Your task to perform on an android device: Check the news Image 0: 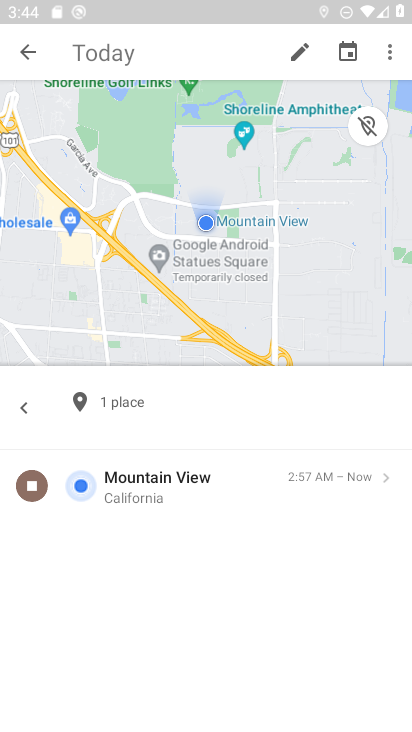
Step 0: press home button
Your task to perform on an android device: Check the news Image 1: 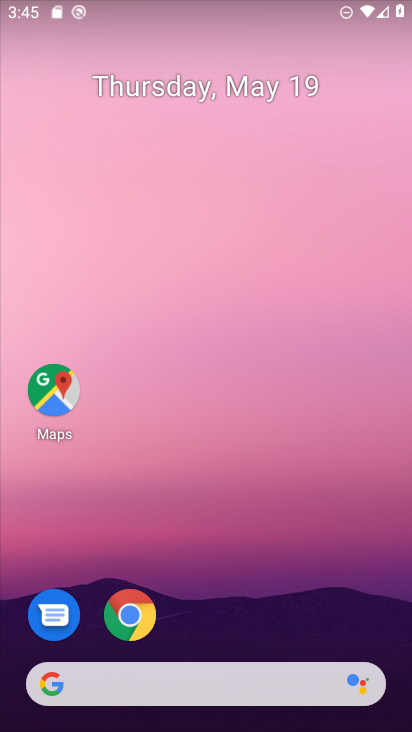
Step 1: drag from (264, 605) to (252, 150)
Your task to perform on an android device: Check the news Image 2: 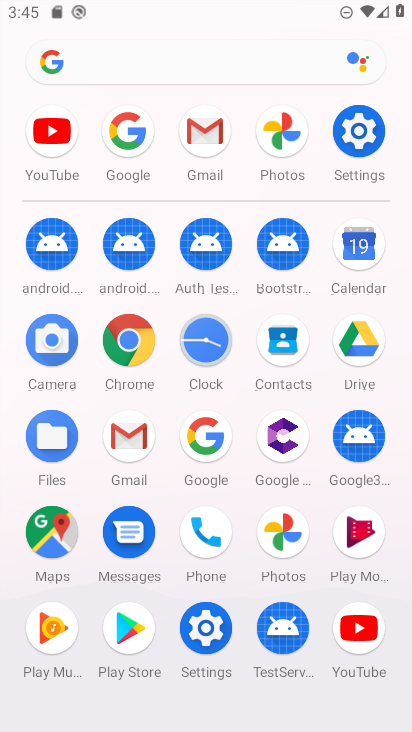
Step 2: click (145, 321)
Your task to perform on an android device: Check the news Image 3: 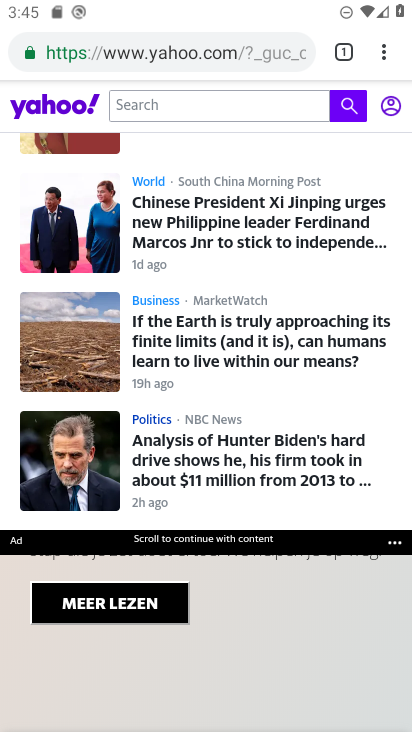
Step 3: click (199, 51)
Your task to perform on an android device: Check the news Image 4: 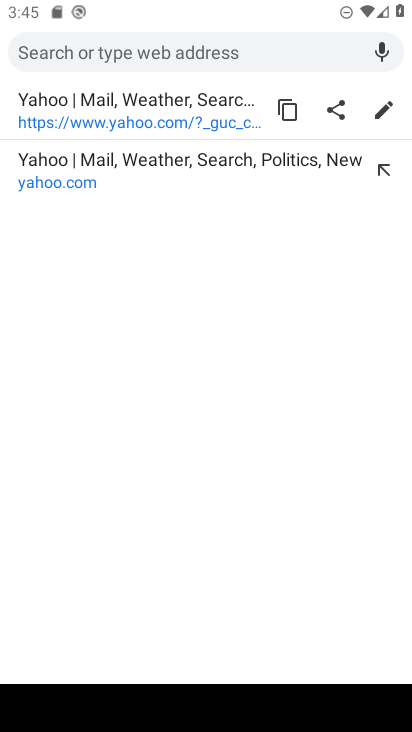
Step 4: type "news"
Your task to perform on an android device: Check the news Image 5: 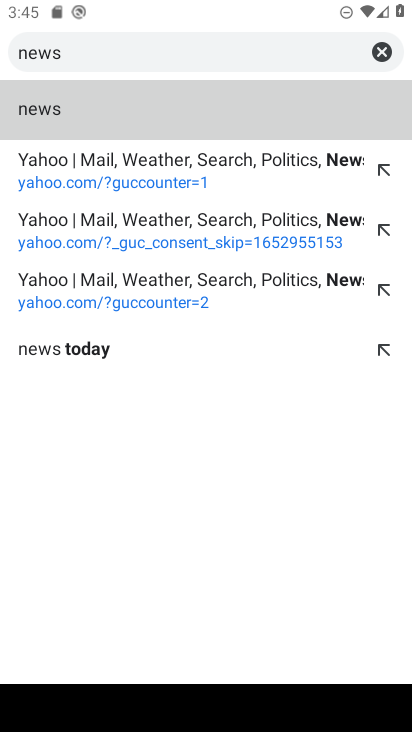
Step 5: click (54, 113)
Your task to perform on an android device: Check the news Image 6: 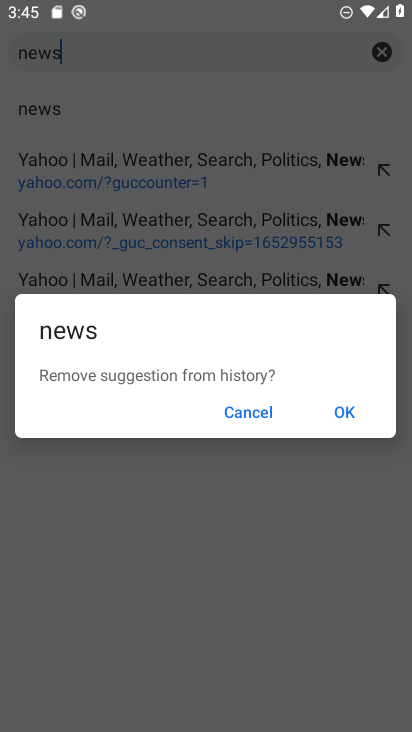
Step 6: click (262, 406)
Your task to perform on an android device: Check the news Image 7: 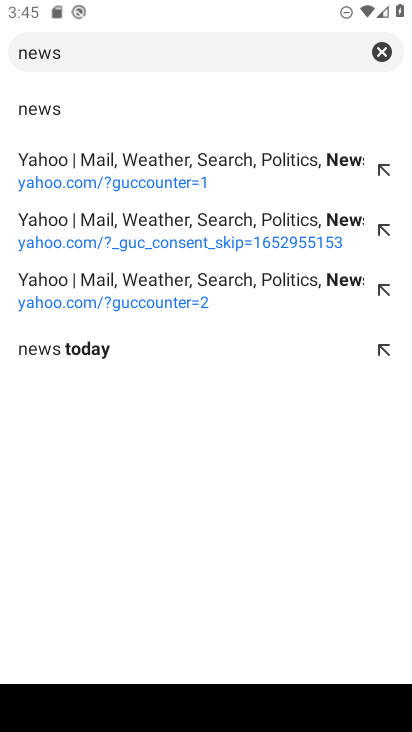
Step 7: click (19, 111)
Your task to perform on an android device: Check the news Image 8: 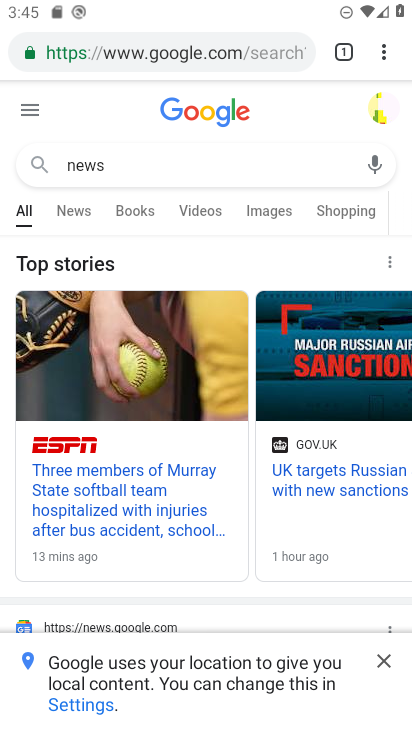
Step 8: task complete